Your task to perform on an android device: see tabs open on other devices in the chrome app Image 0: 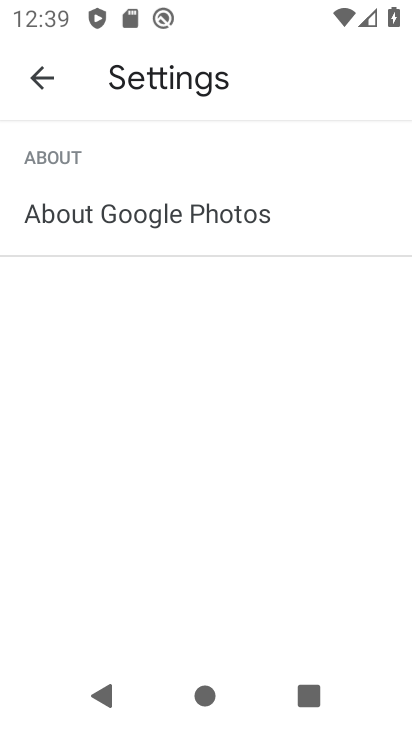
Step 0: press home button
Your task to perform on an android device: see tabs open on other devices in the chrome app Image 1: 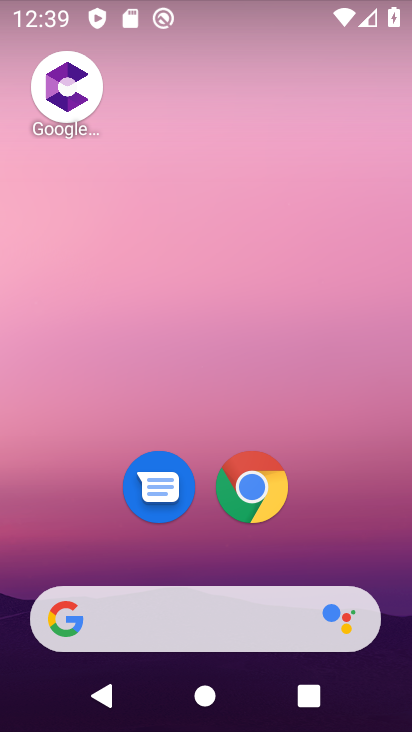
Step 1: click (234, 497)
Your task to perform on an android device: see tabs open on other devices in the chrome app Image 2: 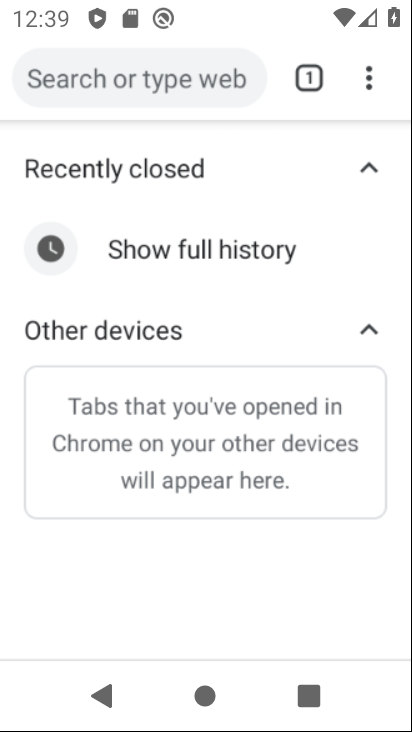
Step 2: click (256, 494)
Your task to perform on an android device: see tabs open on other devices in the chrome app Image 3: 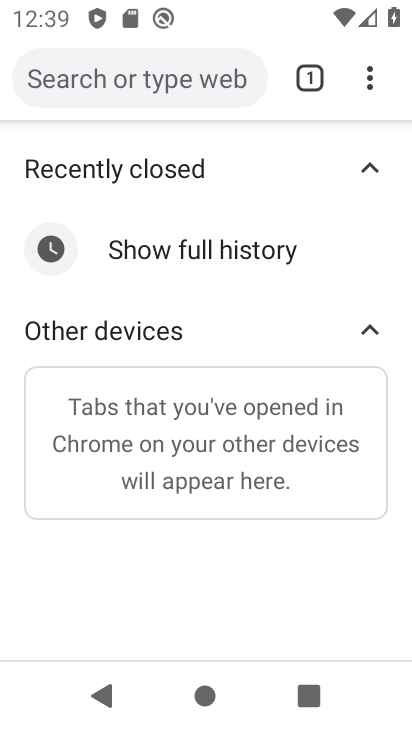
Step 3: click (256, 494)
Your task to perform on an android device: see tabs open on other devices in the chrome app Image 4: 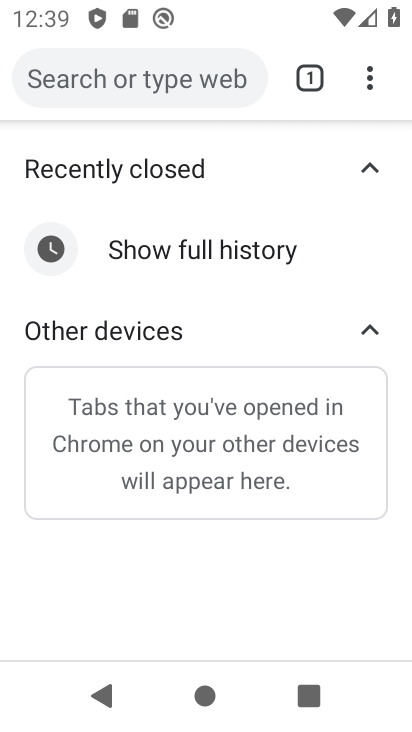
Step 4: click (386, 83)
Your task to perform on an android device: see tabs open on other devices in the chrome app Image 5: 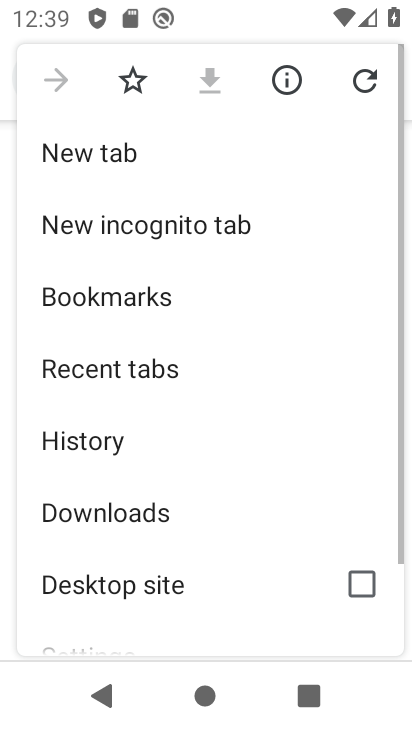
Step 5: click (379, 73)
Your task to perform on an android device: see tabs open on other devices in the chrome app Image 6: 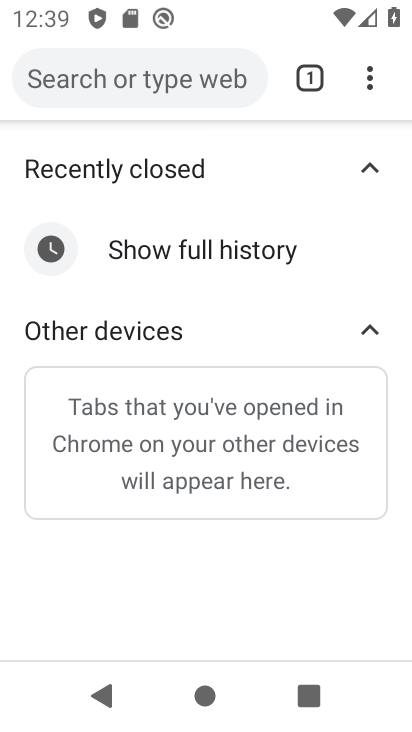
Step 6: click (356, 74)
Your task to perform on an android device: see tabs open on other devices in the chrome app Image 7: 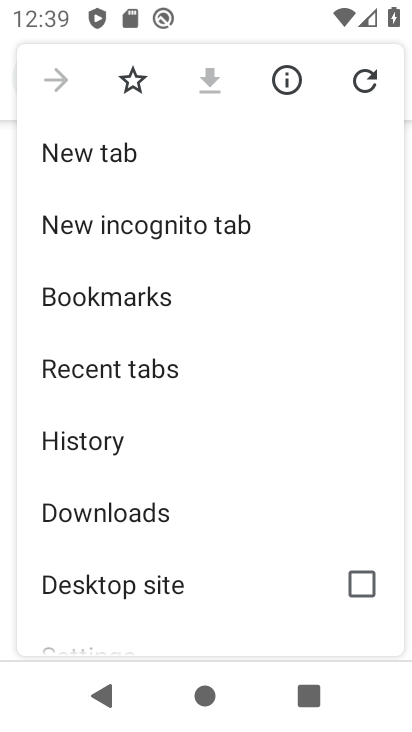
Step 7: click (130, 362)
Your task to perform on an android device: see tabs open on other devices in the chrome app Image 8: 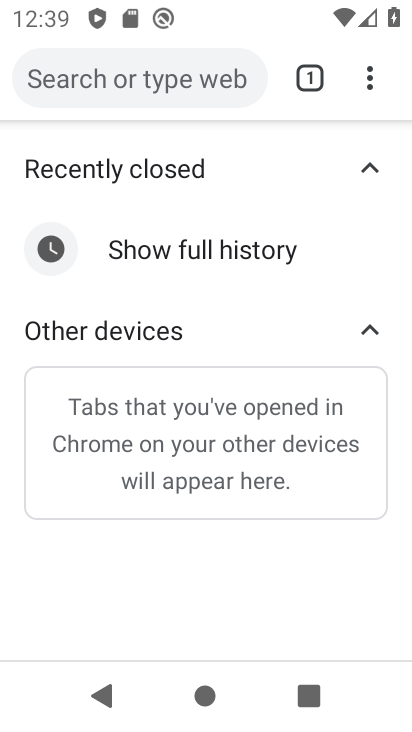
Step 8: task complete